Your task to perform on an android device: Search for sushi restaurants on Maps Image 0: 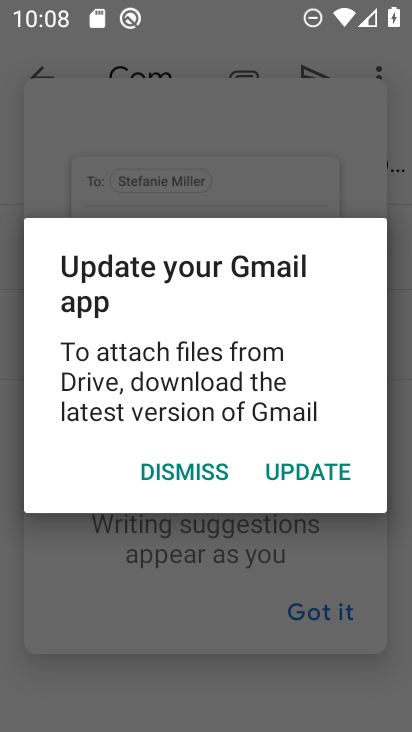
Step 0: press home button
Your task to perform on an android device: Search for sushi restaurants on Maps Image 1: 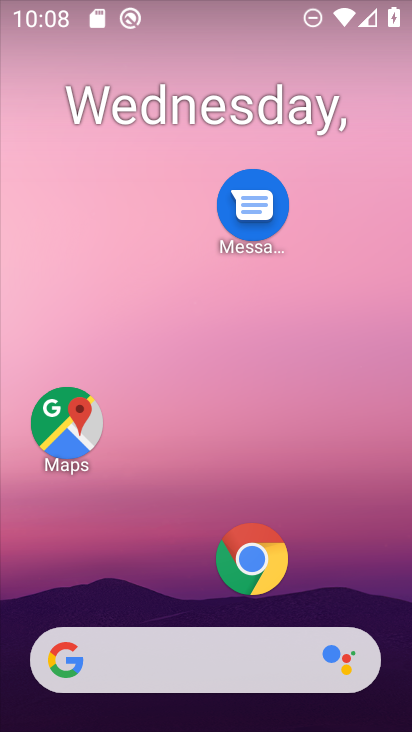
Step 1: drag from (240, 627) to (233, 185)
Your task to perform on an android device: Search for sushi restaurants on Maps Image 2: 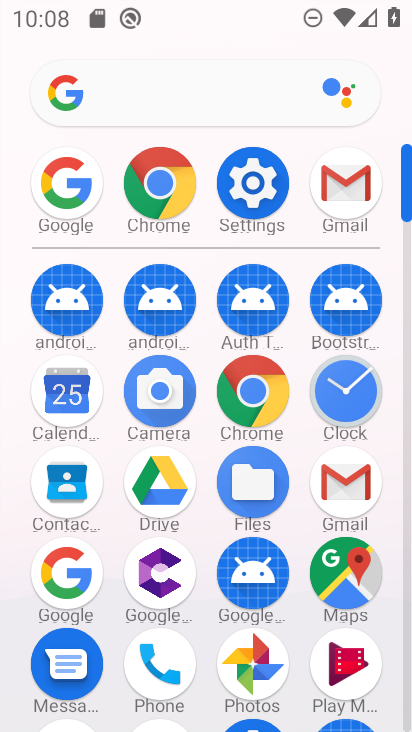
Step 2: click (346, 578)
Your task to perform on an android device: Search for sushi restaurants on Maps Image 3: 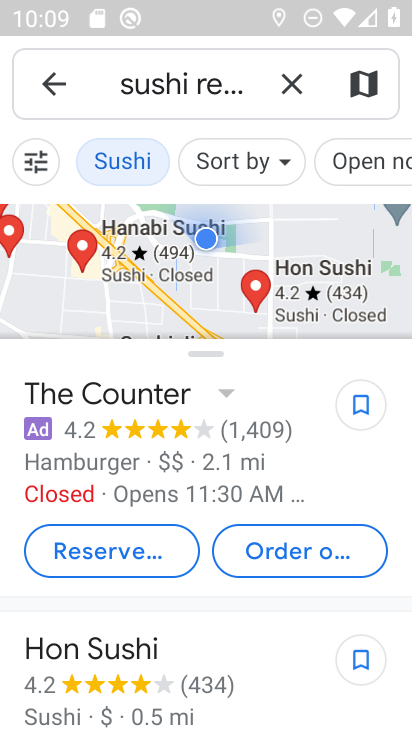
Step 3: click (293, 86)
Your task to perform on an android device: Search for sushi restaurants on Maps Image 4: 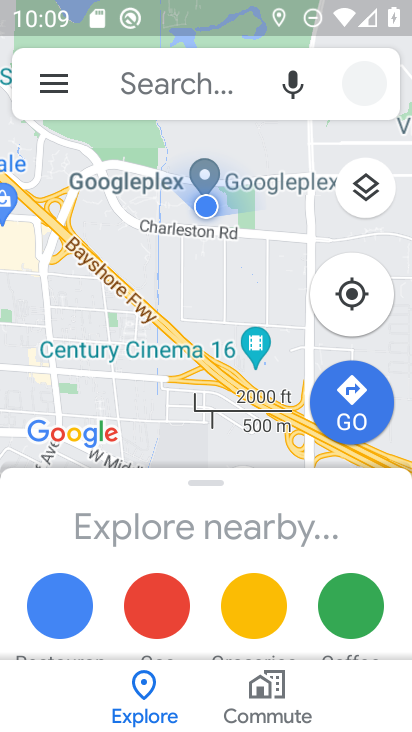
Step 4: task complete